Your task to perform on an android device: toggle priority inbox in the gmail app Image 0: 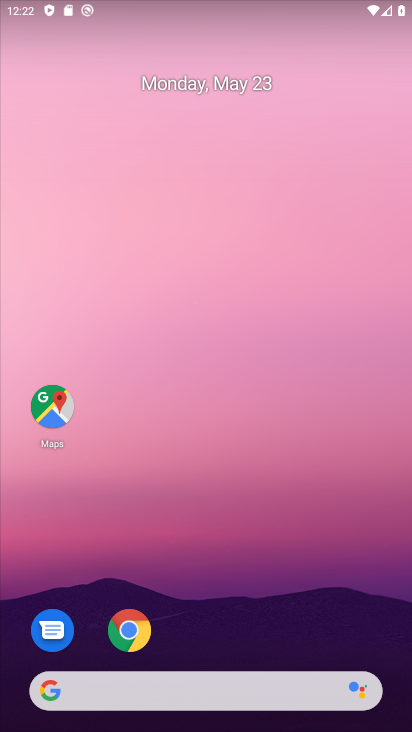
Step 0: drag from (235, 553) to (233, 22)
Your task to perform on an android device: toggle priority inbox in the gmail app Image 1: 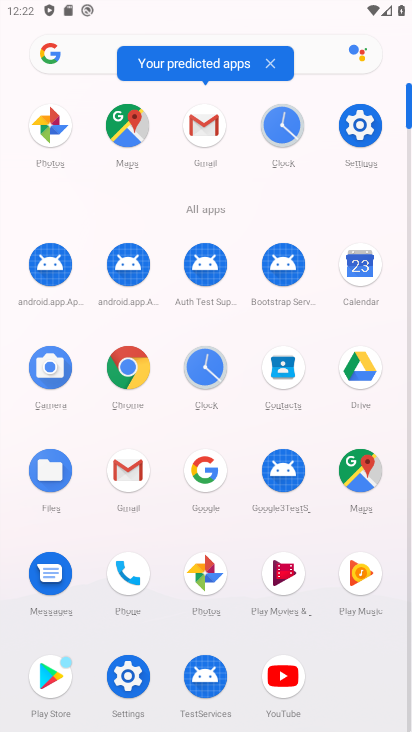
Step 1: drag from (6, 564) to (6, 238)
Your task to perform on an android device: toggle priority inbox in the gmail app Image 2: 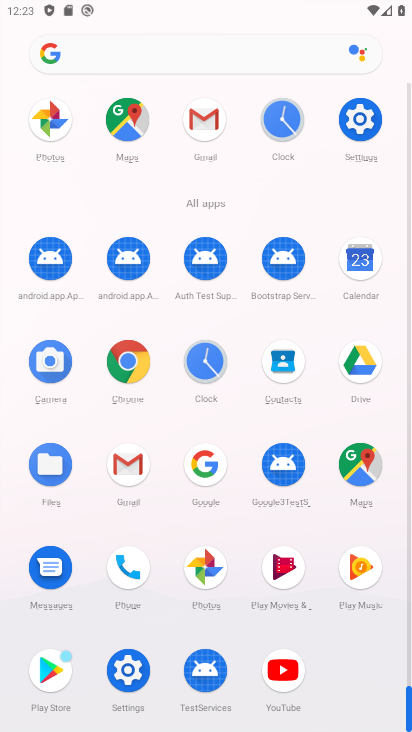
Step 2: click (127, 458)
Your task to perform on an android device: toggle priority inbox in the gmail app Image 3: 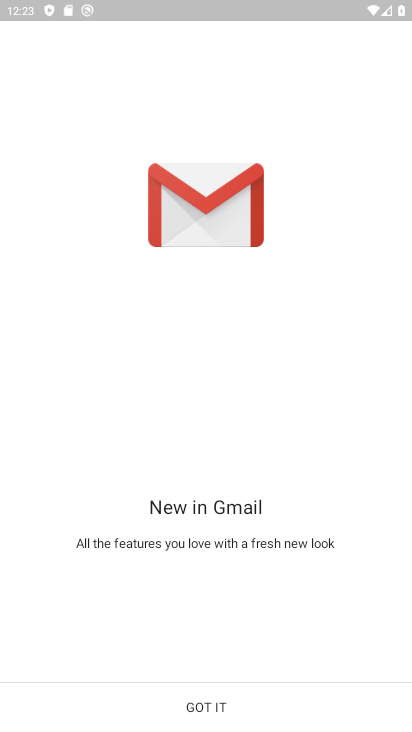
Step 3: click (237, 697)
Your task to perform on an android device: toggle priority inbox in the gmail app Image 4: 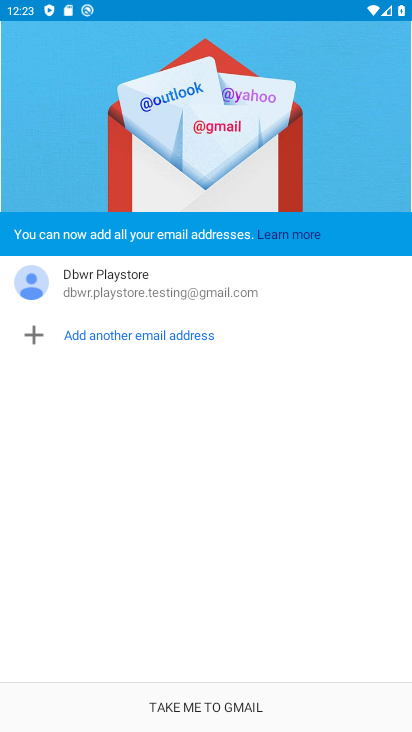
Step 4: click (204, 708)
Your task to perform on an android device: toggle priority inbox in the gmail app Image 5: 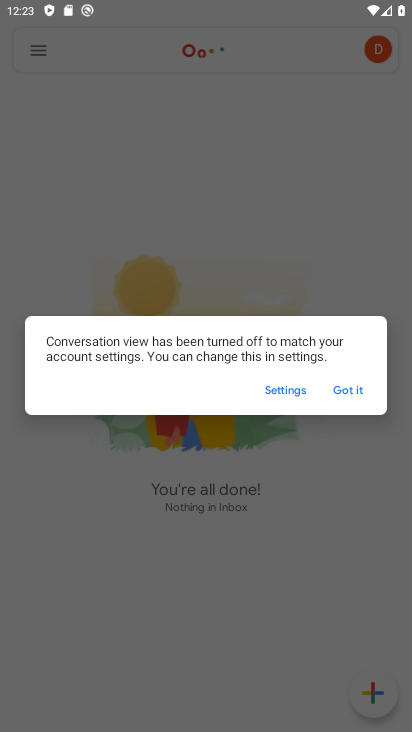
Step 5: click (353, 391)
Your task to perform on an android device: toggle priority inbox in the gmail app Image 6: 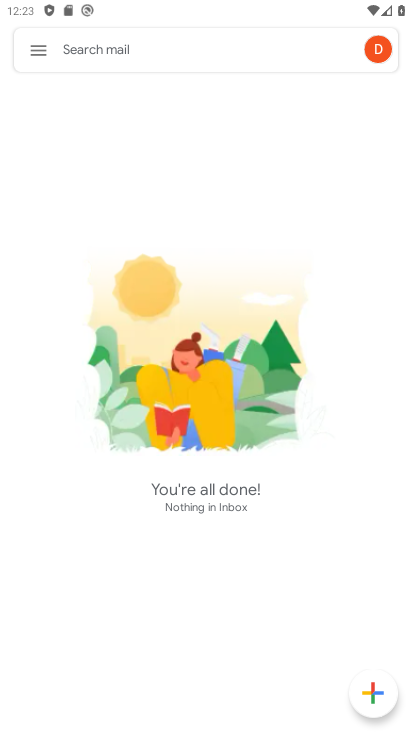
Step 6: click (38, 50)
Your task to perform on an android device: toggle priority inbox in the gmail app Image 7: 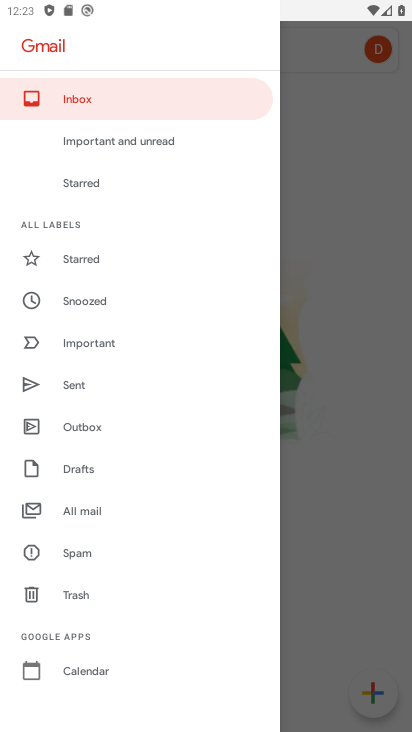
Step 7: drag from (106, 638) to (119, 217)
Your task to perform on an android device: toggle priority inbox in the gmail app Image 8: 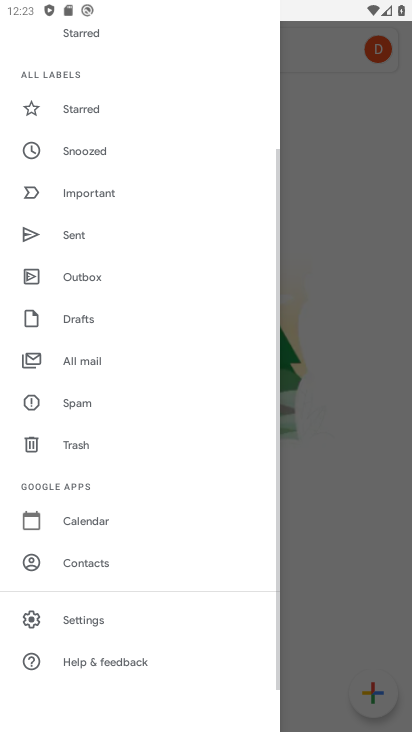
Step 8: click (76, 609)
Your task to perform on an android device: toggle priority inbox in the gmail app Image 9: 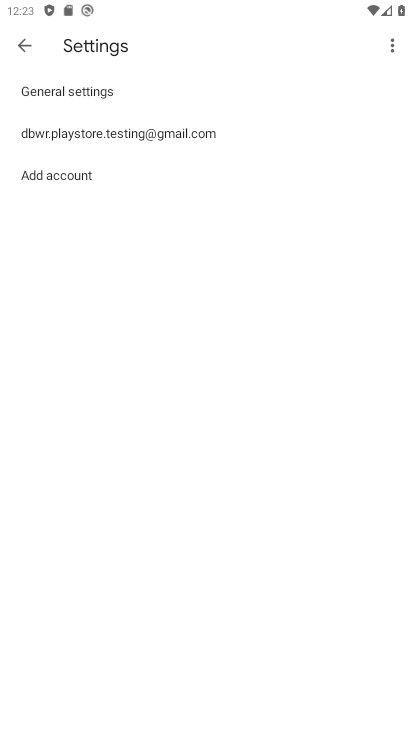
Step 9: click (118, 125)
Your task to perform on an android device: toggle priority inbox in the gmail app Image 10: 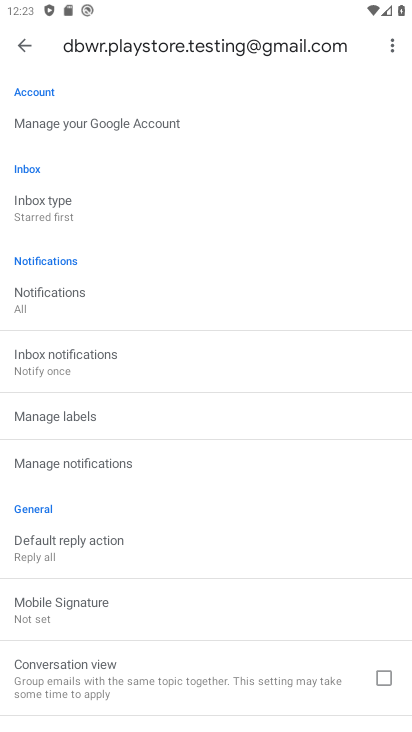
Step 10: drag from (172, 617) to (171, 164)
Your task to perform on an android device: toggle priority inbox in the gmail app Image 11: 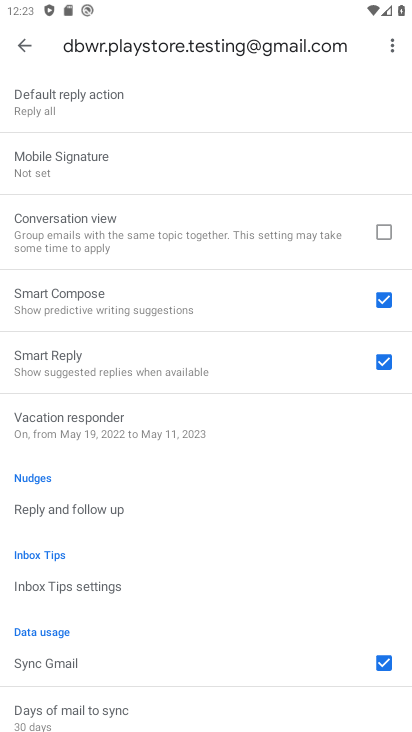
Step 11: drag from (132, 613) to (141, 285)
Your task to perform on an android device: toggle priority inbox in the gmail app Image 12: 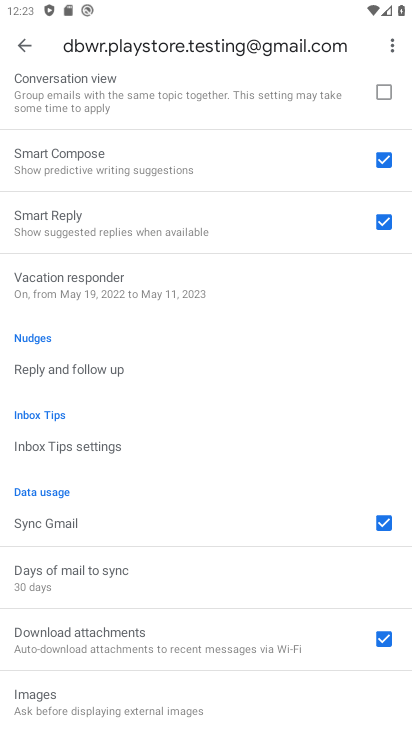
Step 12: drag from (107, 111) to (205, 559)
Your task to perform on an android device: toggle priority inbox in the gmail app Image 13: 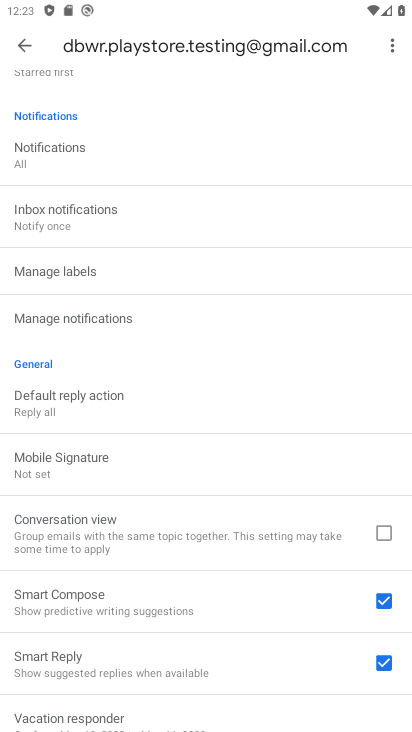
Step 13: drag from (172, 340) to (177, 378)
Your task to perform on an android device: toggle priority inbox in the gmail app Image 14: 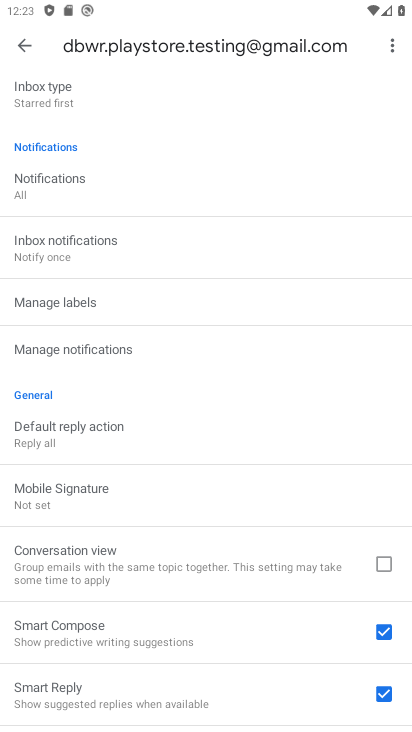
Step 14: click (84, 116)
Your task to perform on an android device: toggle priority inbox in the gmail app Image 15: 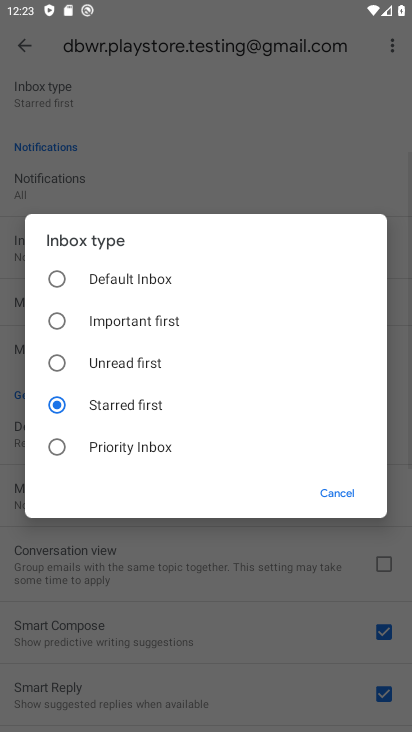
Step 15: click (125, 446)
Your task to perform on an android device: toggle priority inbox in the gmail app Image 16: 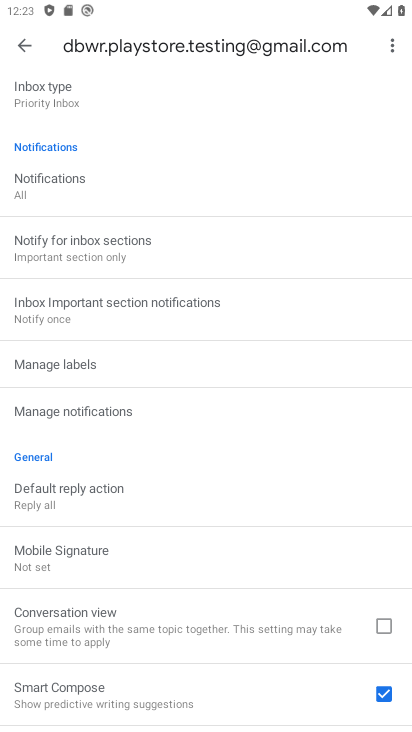
Step 16: task complete